Your task to perform on an android device: Clear the cart on bestbuy. Add "usb-c to usb-a" to the cart on bestbuy, then select checkout. Image 0: 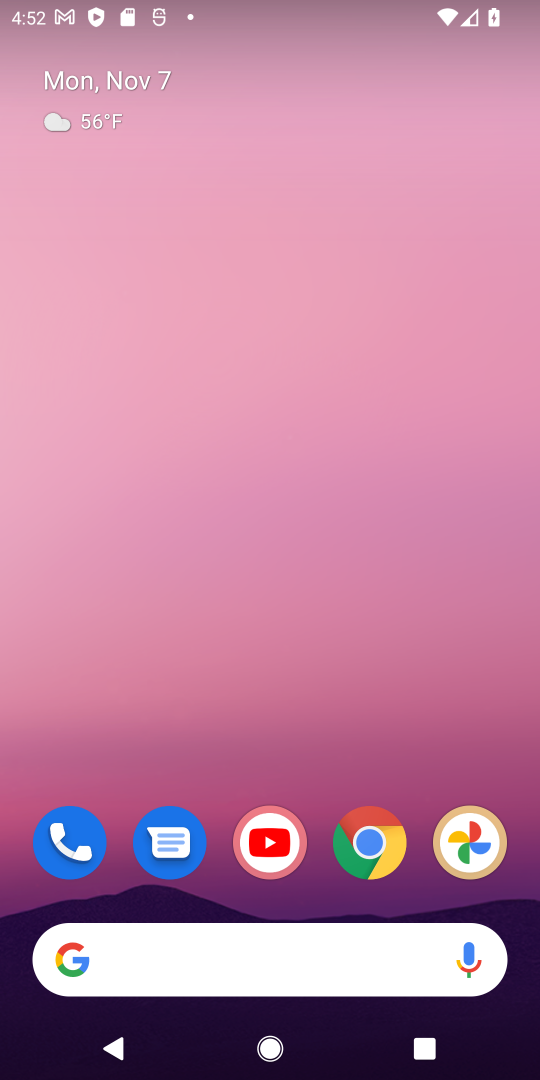
Step 0: click (377, 851)
Your task to perform on an android device: Clear the cart on bestbuy. Add "usb-c to usb-a" to the cart on bestbuy, then select checkout. Image 1: 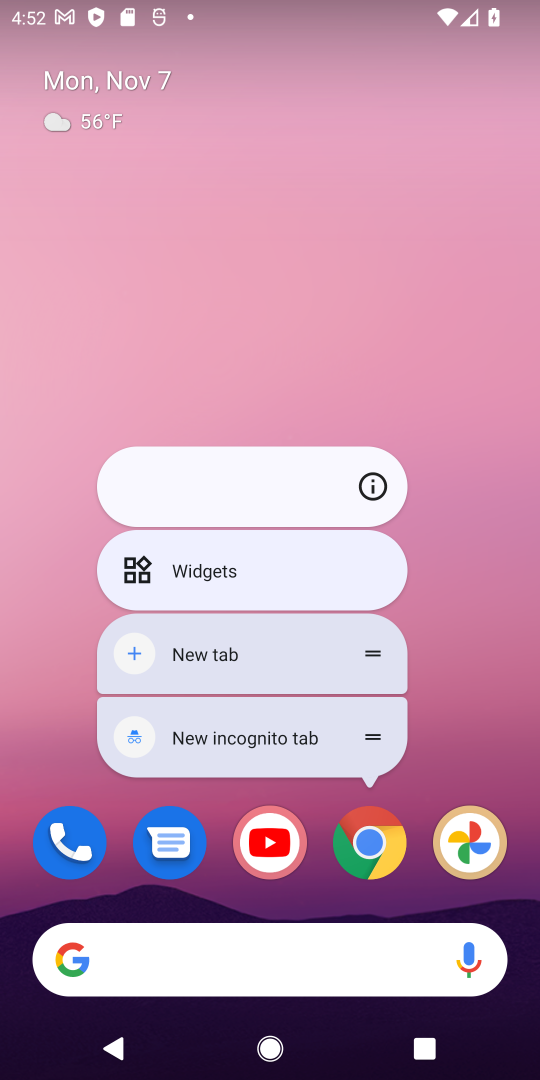
Step 1: click (377, 851)
Your task to perform on an android device: Clear the cart on bestbuy. Add "usb-c to usb-a" to the cart on bestbuy, then select checkout. Image 2: 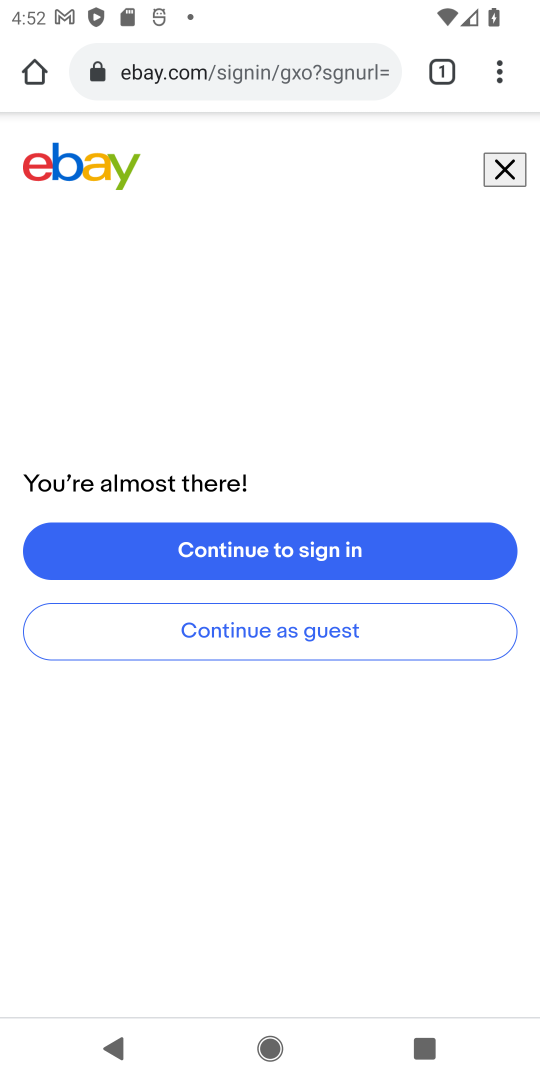
Step 2: click (209, 60)
Your task to perform on an android device: Clear the cart on bestbuy. Add "usb-c to usb-a" to the cart on bestbuy, then select checkout. Image 3: 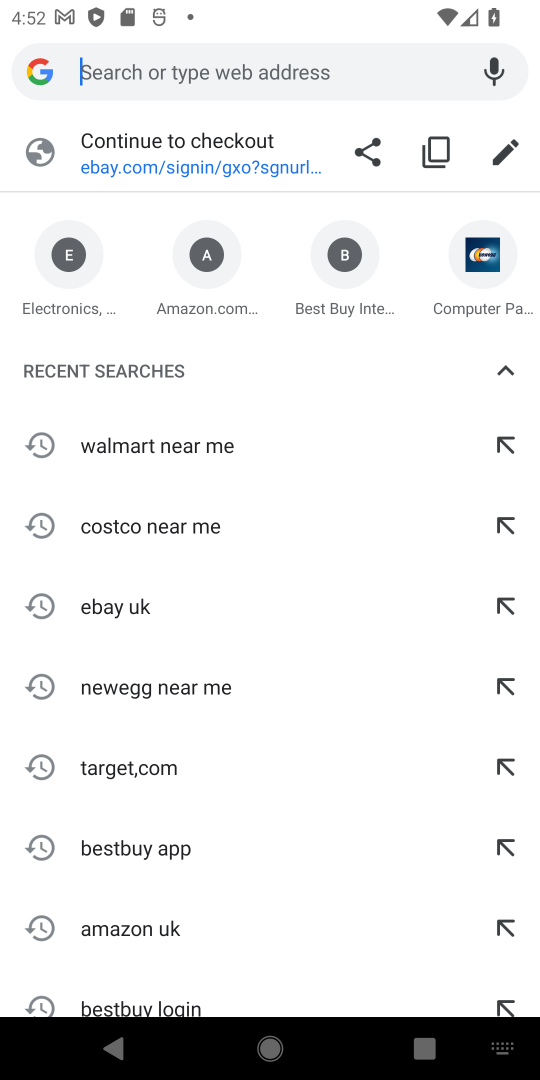
Step 3: click (325, 300)
Your task to perform on an android device: Clear the cart on bestbuy. Add "usb-c to usb-a" to the cart on bestbuy, then select checkout. Image 4: 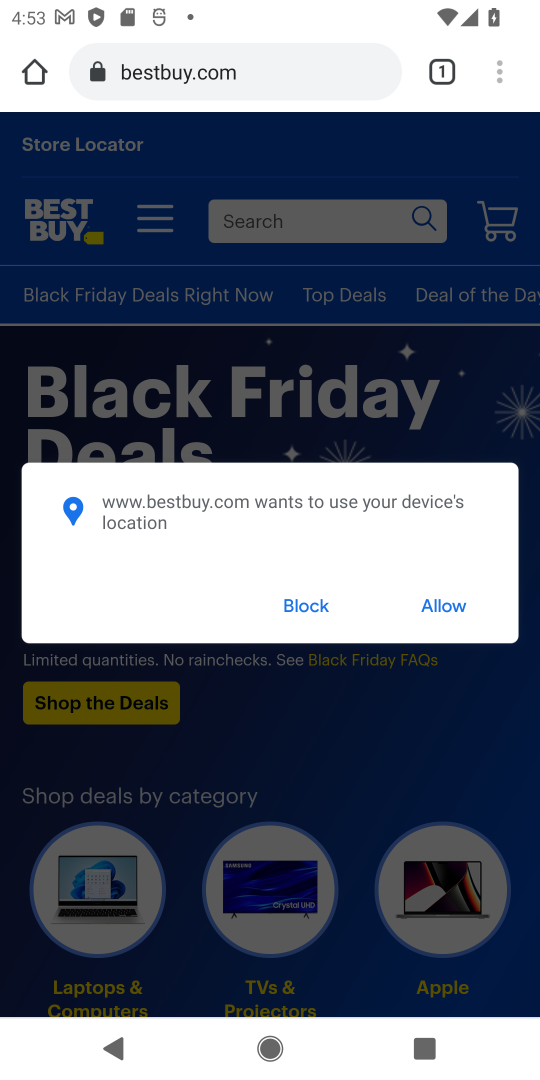
Step 4: click (441, 608)
Your task to perform on an android device: Clear the cart on bestbuy. Add "usb-c to usb-a" to the cart on bestbuy, then select checkout. Image 5: 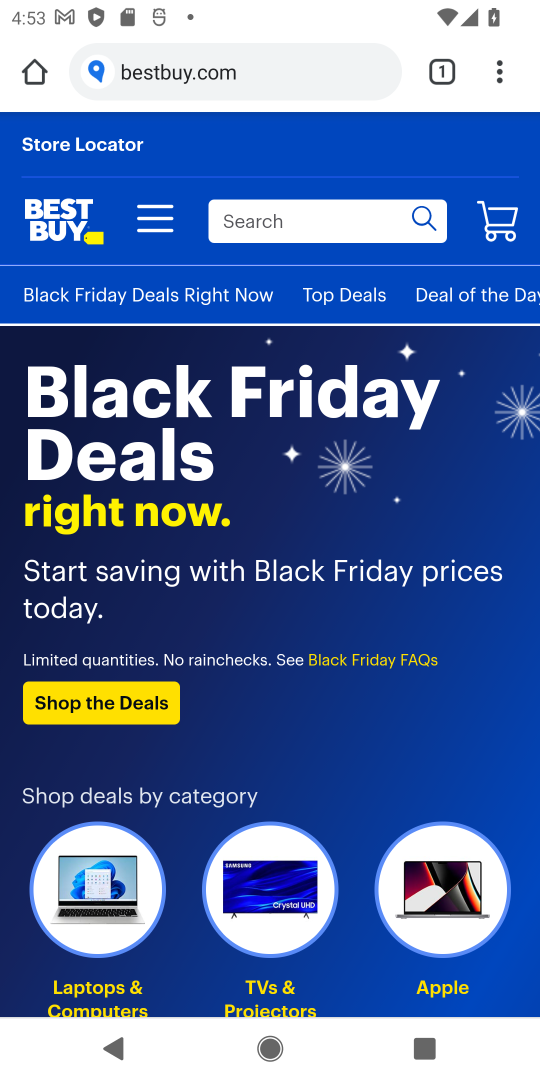
Step 5: click (298, 216)
Your task to perform on an android device: Clear the cart on bestbuy. Add "usb-c to usb-a" to the cart on bestbuy, then select checkout. Image 6: 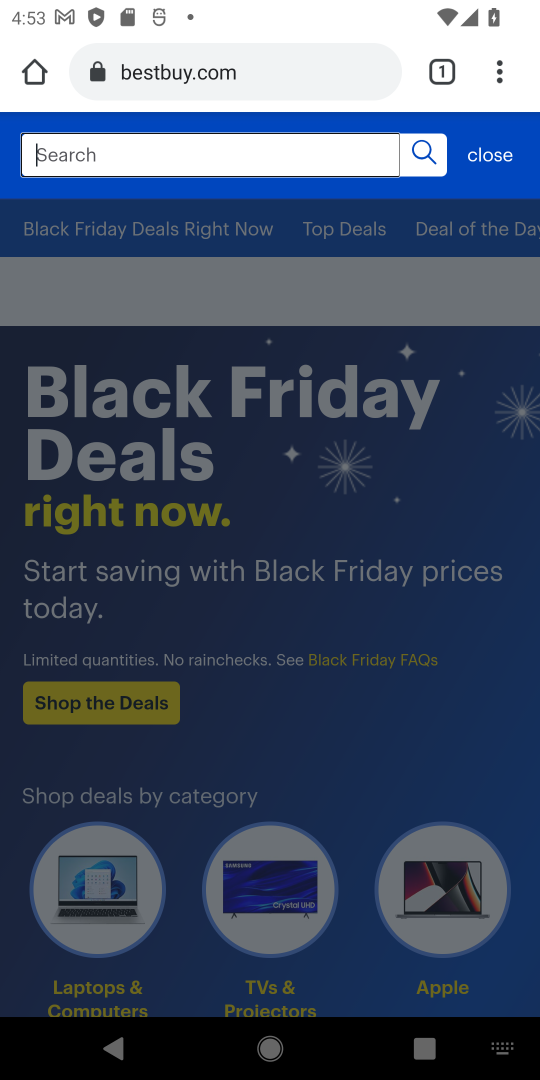
Step 6: type "usb-c to usb-a"
Your task to perform on an android device: Clear the cart on bestbuy. Add "usb-c to usb-a" to the cart on bestbuy, then select checkout. Image 7: 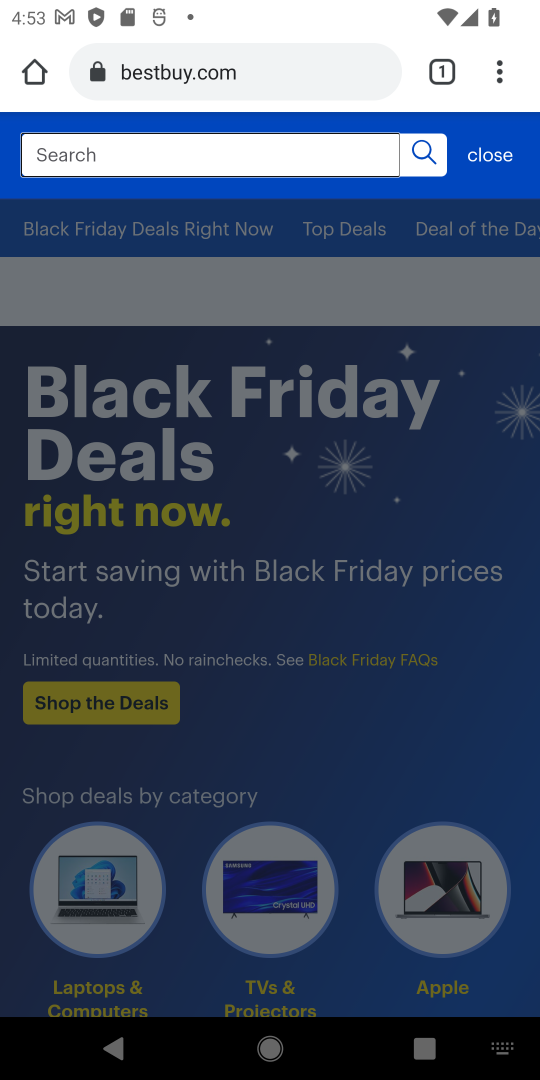
Step 7: press enter
Your task to perform on an android device: Clear the cart on bestbuy. Add "usb-c to usb-a" to the cart on bestbuy, then select checkout. Image 8: 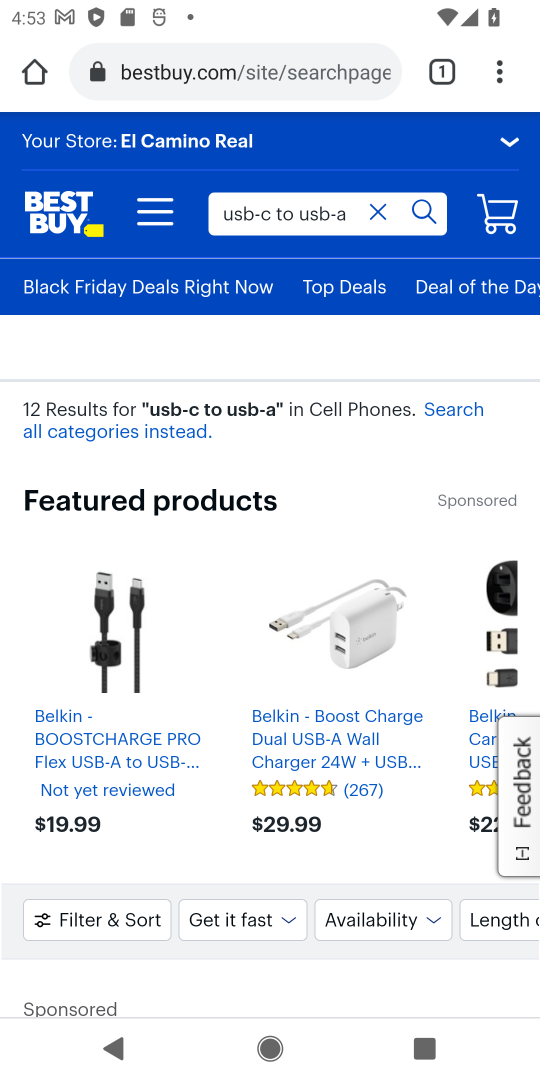
Step 8: drag from (205, 850) to (421, 333)
Your task to perform on an android device: Clear the cart on bestbuy. Add "usb-c to usb-a" to the cart on bestbuy, then select checkout. Image 9: 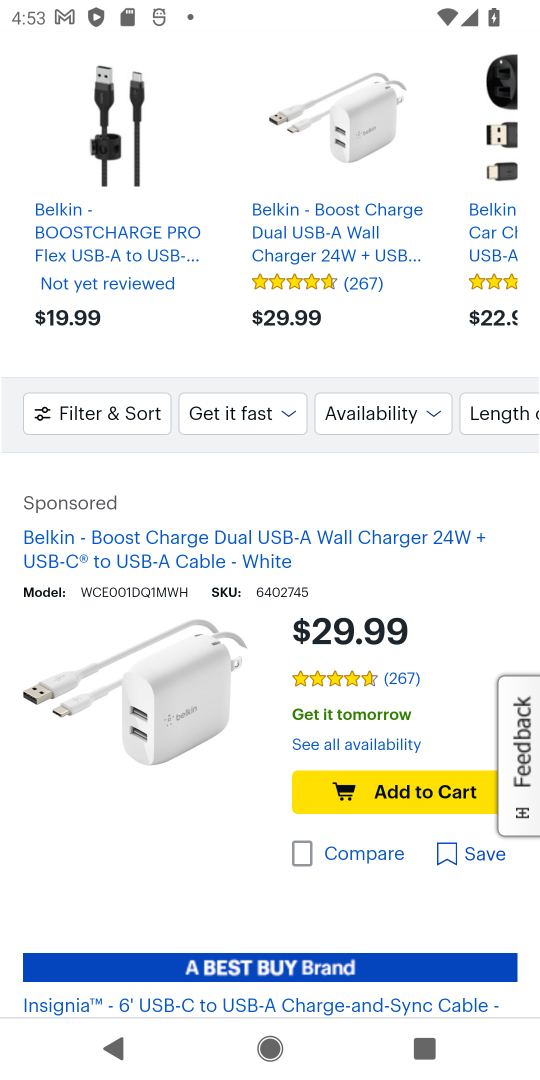
Step 9: drag from (189, 879) to (333, 439)
Your task to perform on an android device: Clear the cart on bestbuy. Add "usb-c to usb-a" to the cart on bestbuy, then select checkout. Image 10: 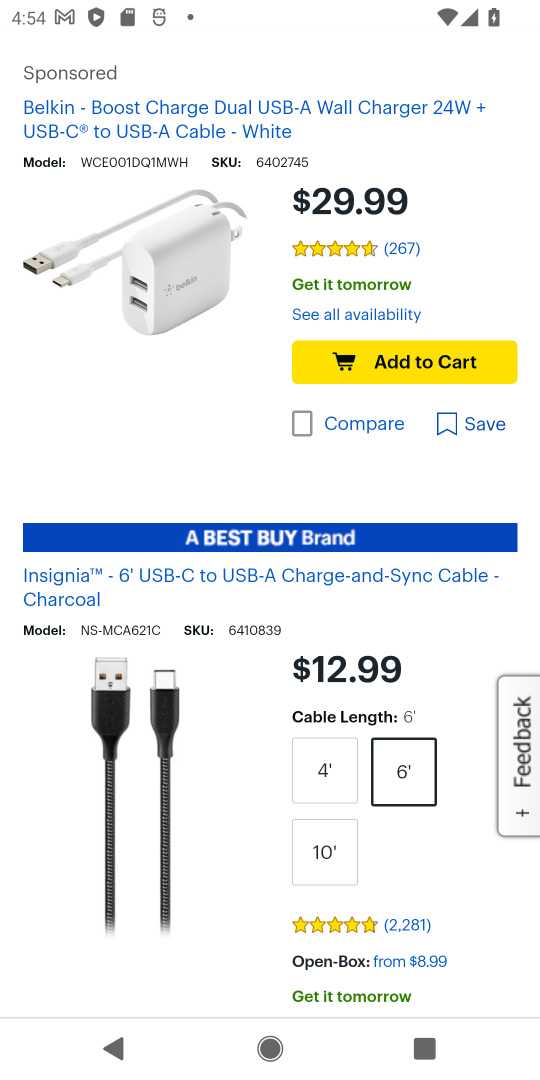
Step 10: drag from (212, 844) to (303, 576)
Your task to perform on an android device: Clear the cart on bestbuy. Add "usb-c to usb-a" to the cart on bestbuy, then select checkout. Image 11: 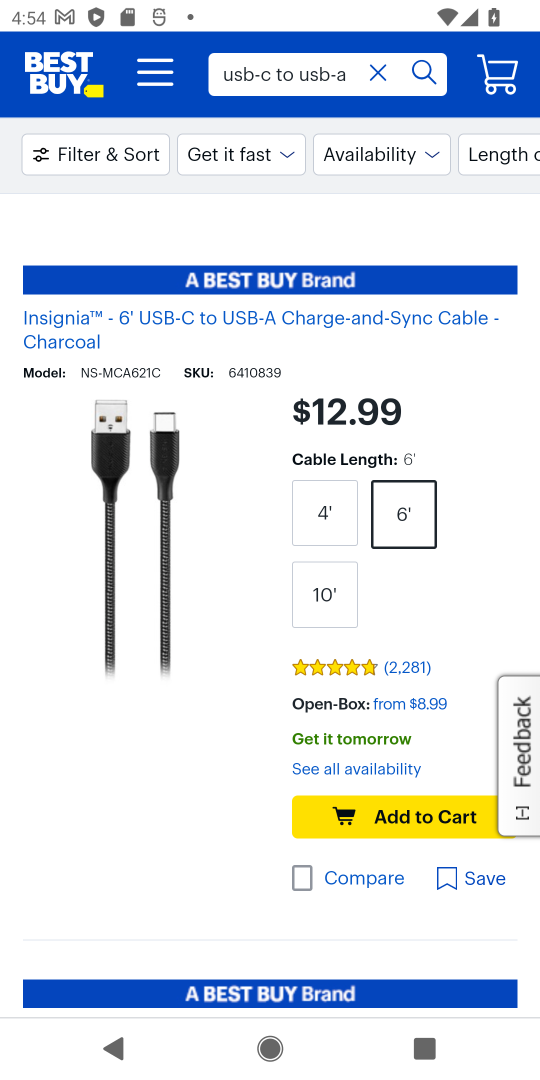
Step 11: click (405, 813)
Your task to perform on an android device: Clear the cart on bestbuy. Add "usb-c to usb-a" to the cart on bestbuy, then select checkout. Image 12: 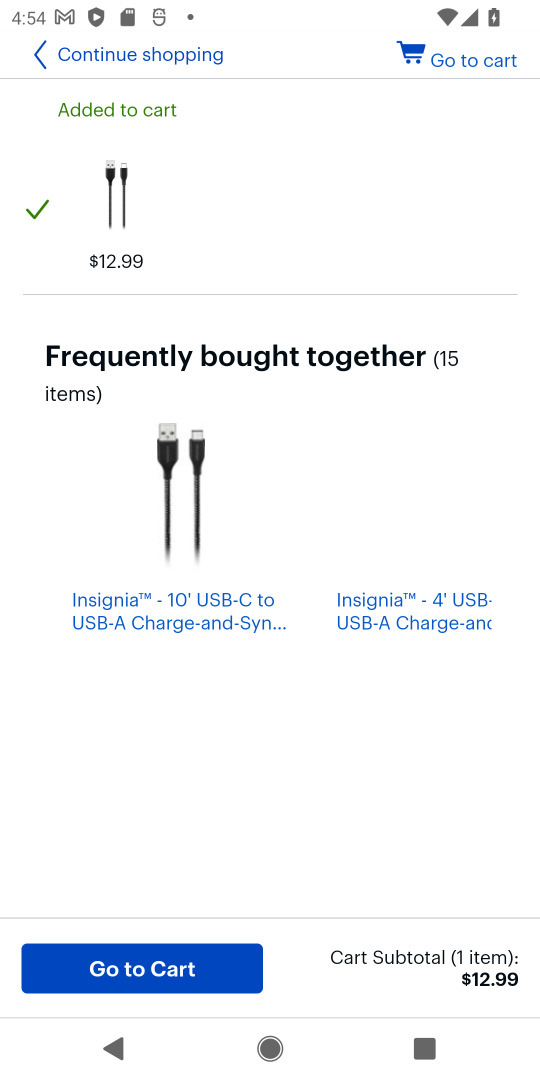
Step 12: click (492, 64)
Your task to perform on an android device: Clear the cart on bestbuy. Add "usb-c to usb-a" to the cart on bestbuy, then select checkout. Image 13: 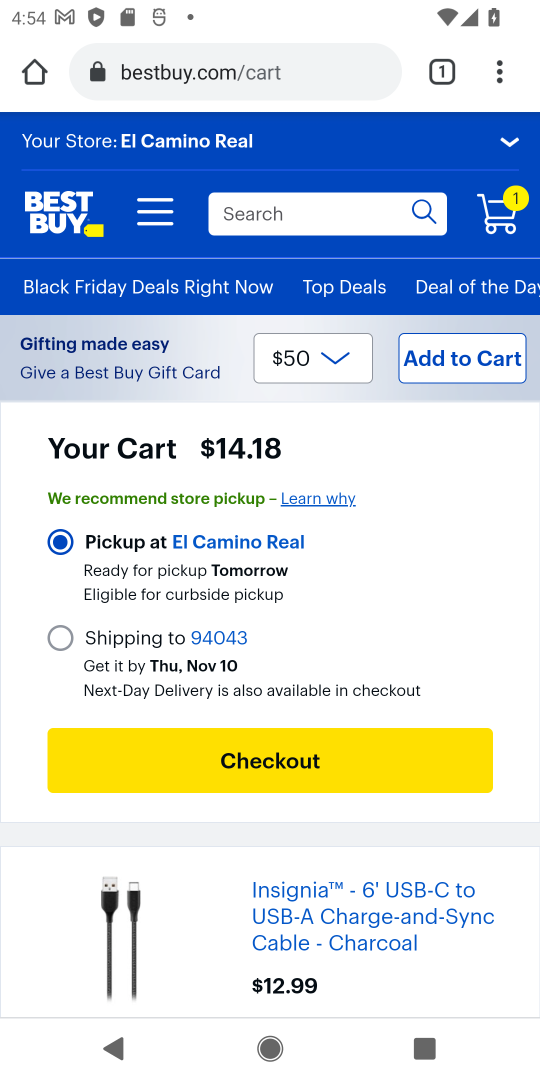
Step 13: drag from (235, 880) to (363, 479)
Your task to perform on an android device: Clear the cart on bestbuy. Add "usb-c to usb-a" to the cart on bestbuy, then select checkout. Image 14: 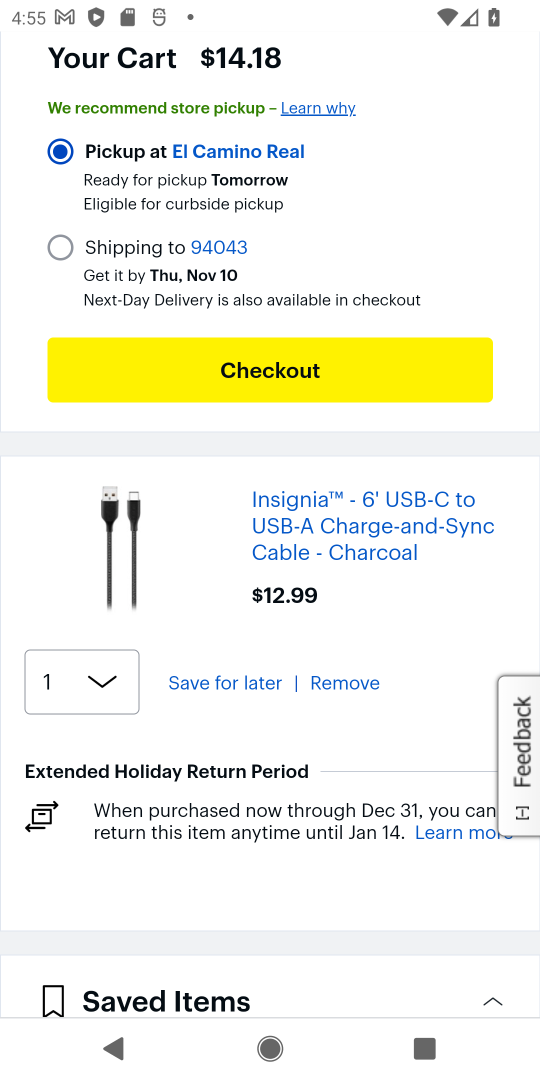
Step 14: click (299, 365)
Your task to perform on an android device: Clear the cart on bestbuy. Add "usb-c to usb-a" to the cart on bestbuy, then select checkout. Image 15: 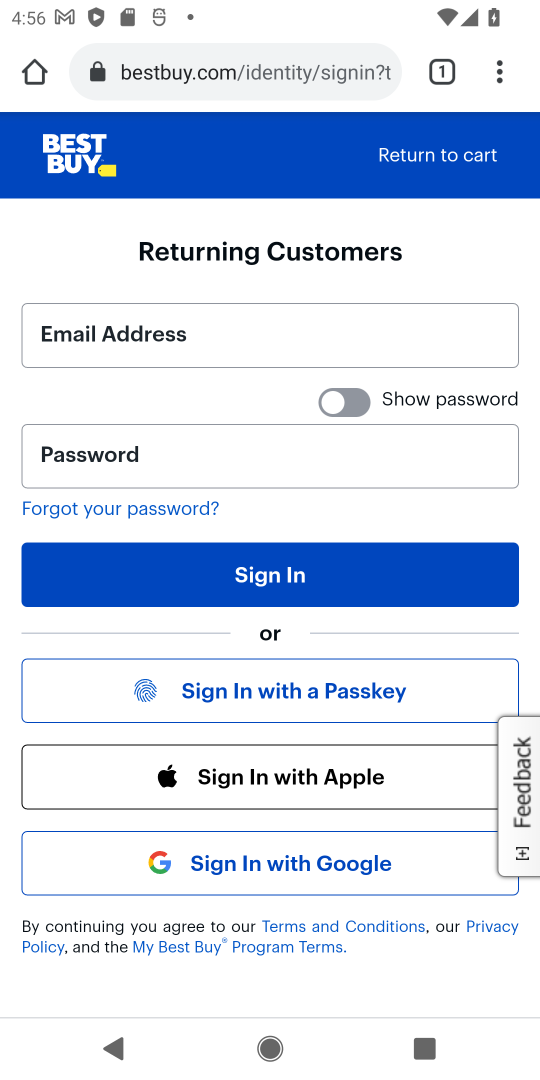
Step 15: task complete